Your task to perform on an android device: install app "Expedia: Hotels, Flights & Car" Image 0: 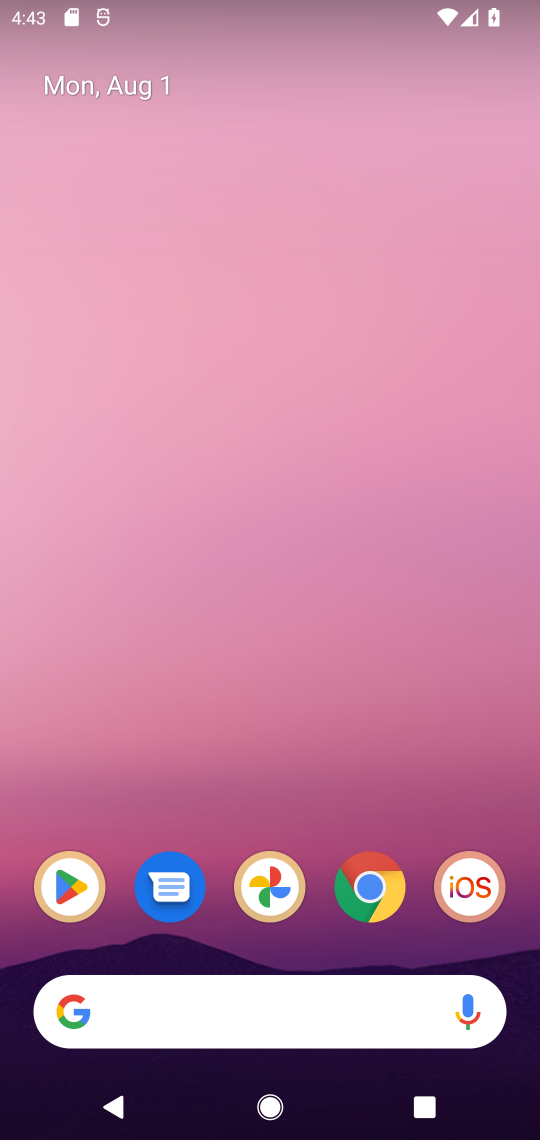
Step 0: drag from (262, 959) to (91, 133)
Your task to perform on an android device: install app "Expedia: Hotels, Flights & Car" Image 1: 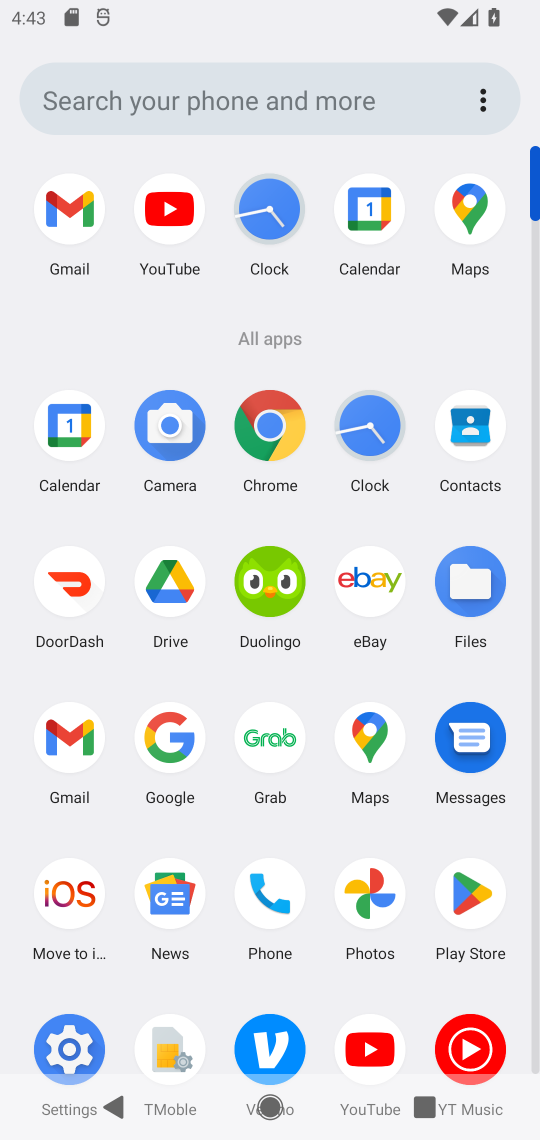
Step 1: click (473, 873)
Your task to perform on an android device: install app "Expedia: Hotels, Flights & Car" Image 2: 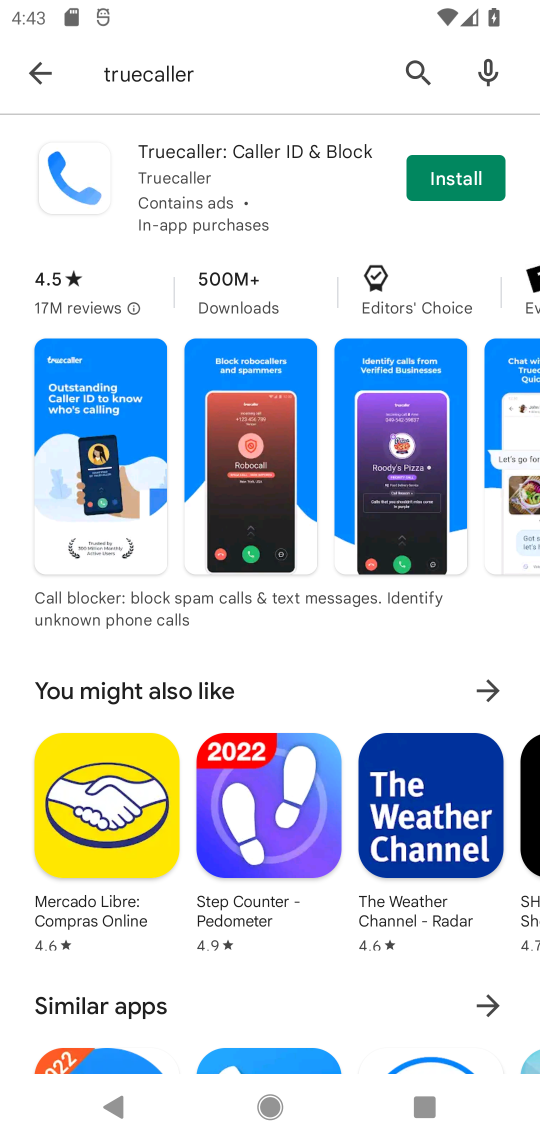
Step 2: click (26, 75)
Your task to perform on an android device: install app "Expedia: Hotels, Flights & Car" Image 3: 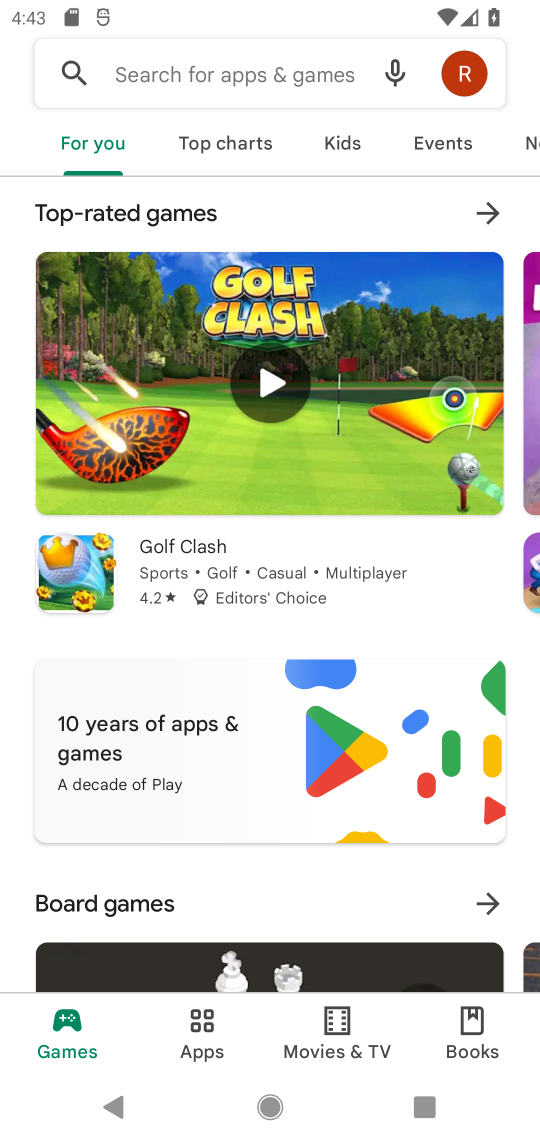
Step 3: click (138, 65)
Your task to perform on an android device: install app "Expedia: Hotels, Flights & Car" Image 4: 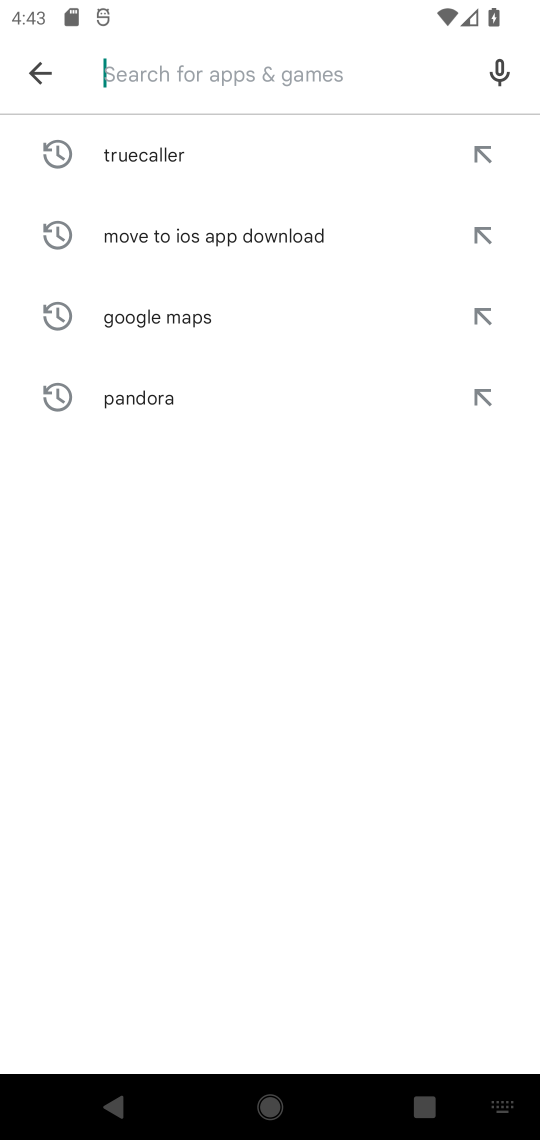
Step 4: type "Expedia"
Your task to perform on an android device: install app "Expedia: Hotels, Flights & Car" Image 5: 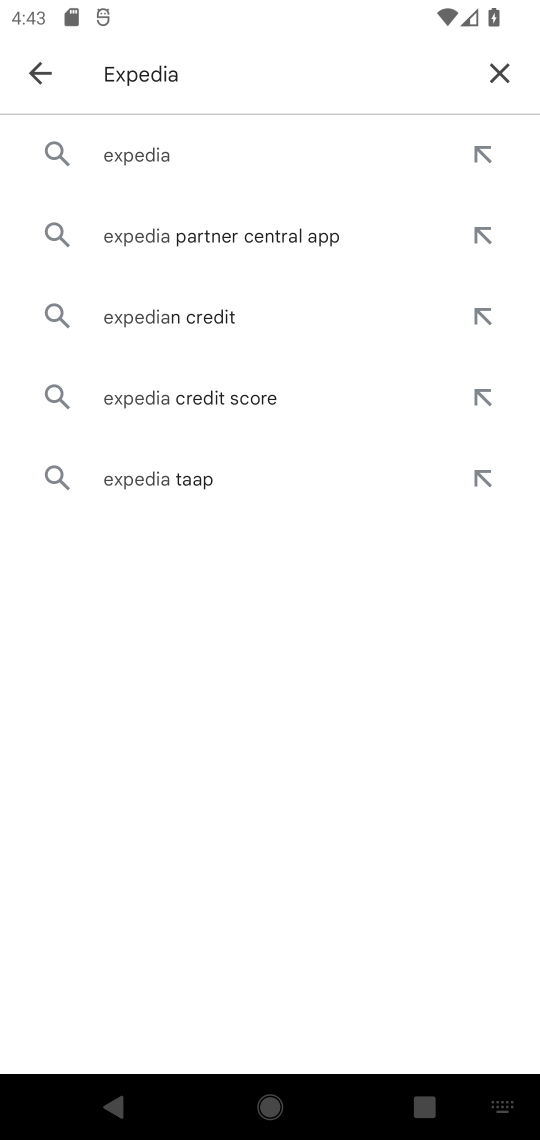
Step 5: click (128, 167)
Your task to perform on an android device: install app "Expedia: Hotels, Flights & Car" Image 6: 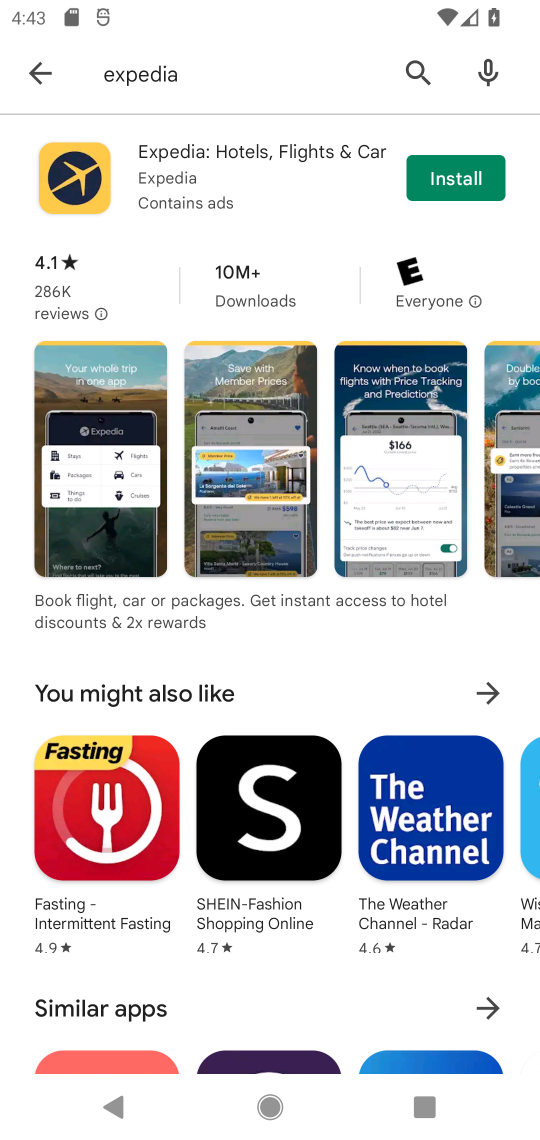
Step 6: click (454, 169)
Your task to perform on an android device: install app "Expedia: Hotels, Flights & Car" Image 7: 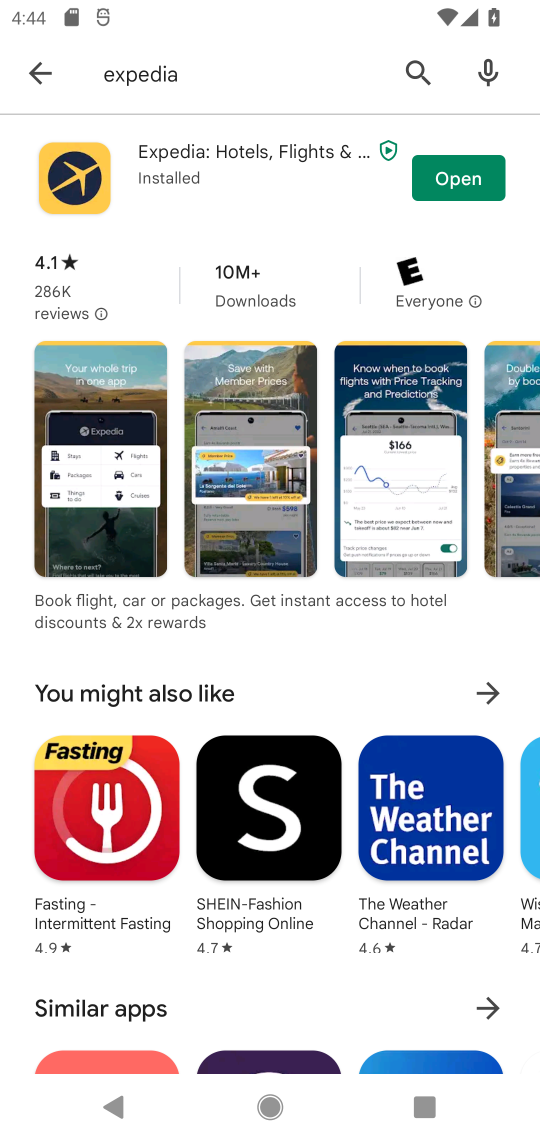
Step 7: task complete